Your task to perform on an android device: open app "Microsoft Excel" Image 0: 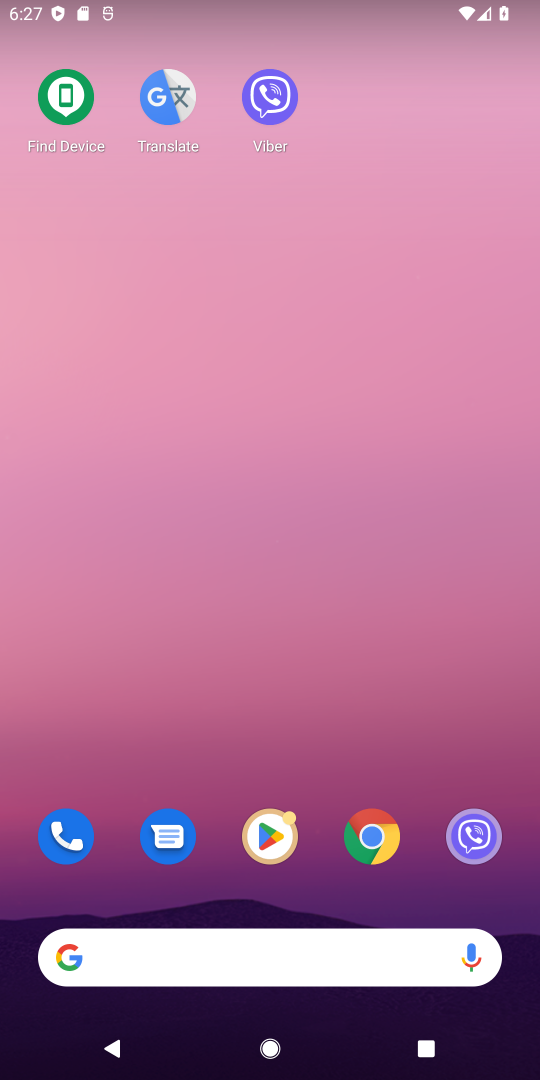
Step 0: press home button
Your task to perform on an android device: open app "Microsoft Excel" Image 1: 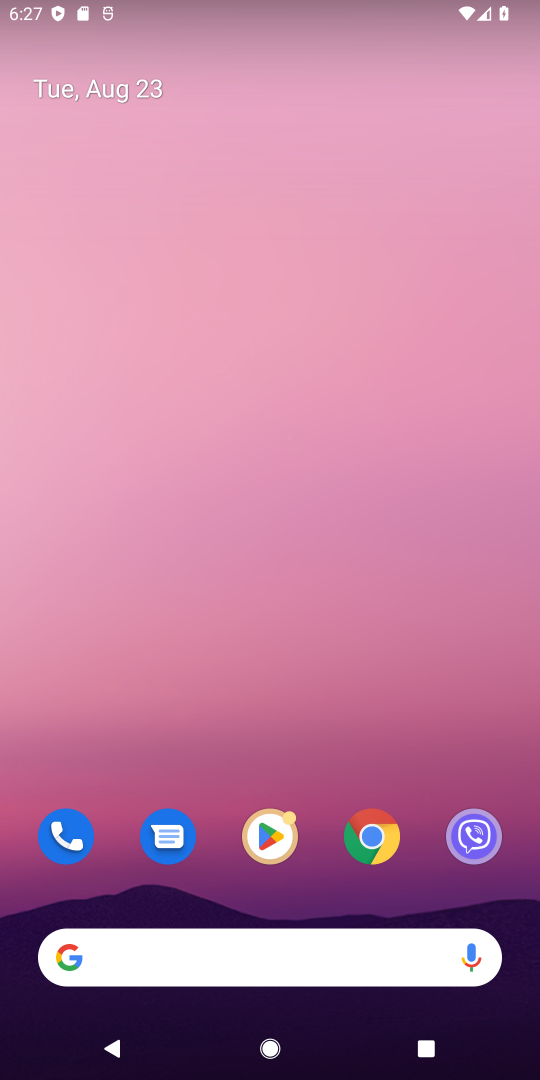
Step 1: click (268, 839)
Your task to perform on an android device: open app "Microsoft Excel" Image 2: 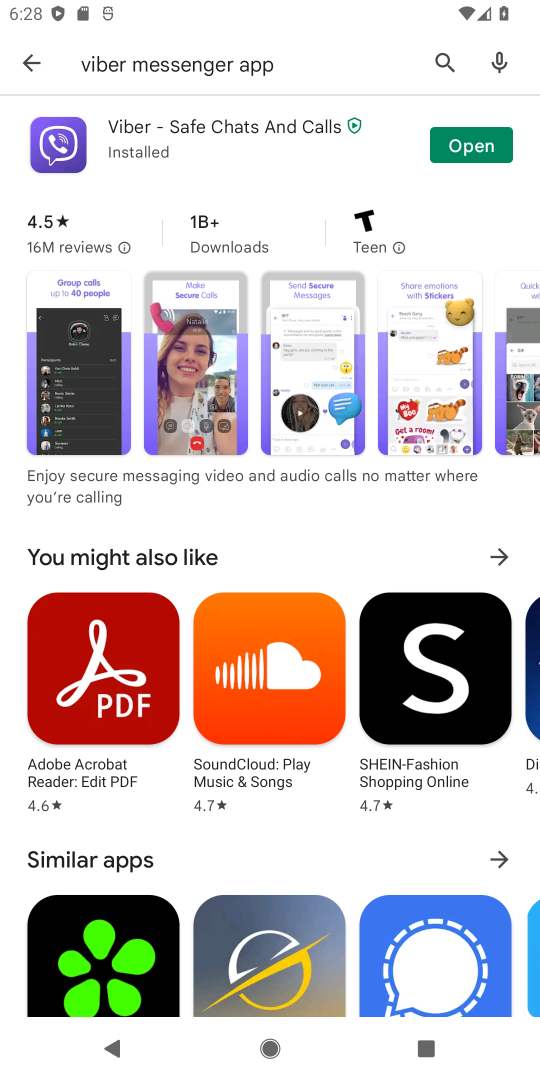
Step 2: click (440, 53)
Your task to perform on an android device: open app "Microsoft Excel" Image 3: 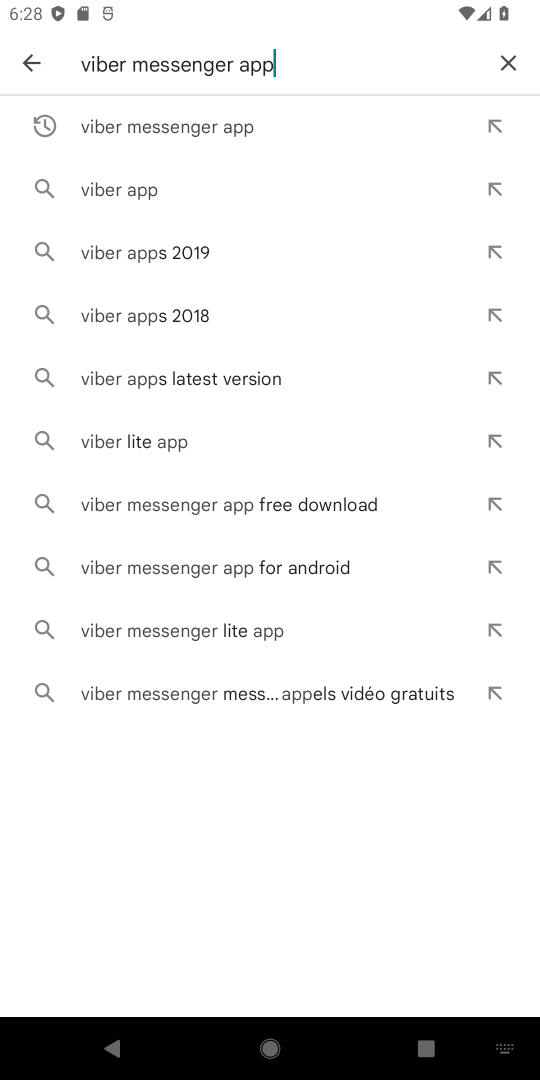
Step 3: click (511, 52)
Your task to perform on an android device: open app "Microsoft Excel" Image 4: 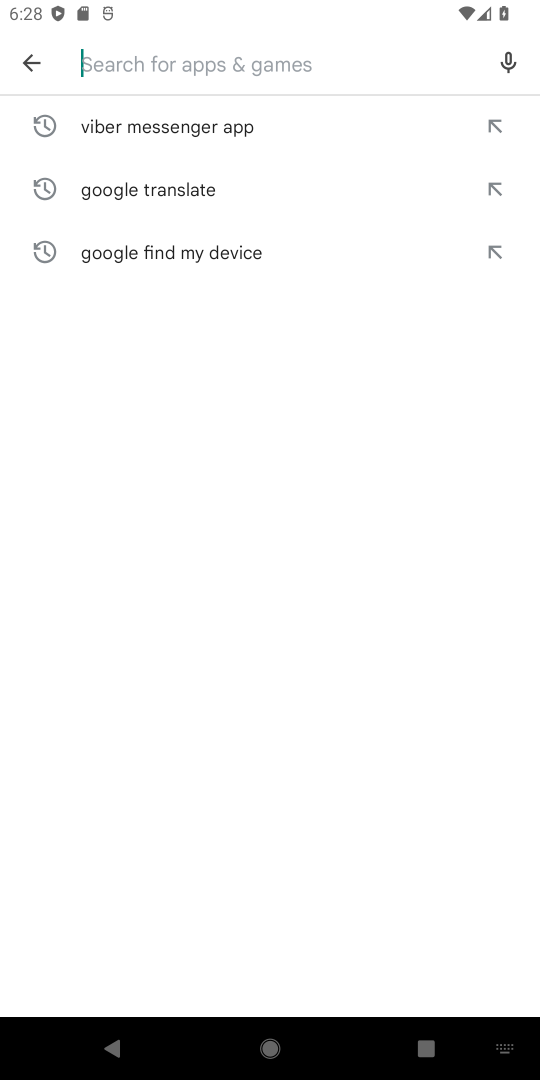
Step 4: type "Microsoft Excel"
Your task to perform on an android device: open app "Microsoft Excel" Image 5: 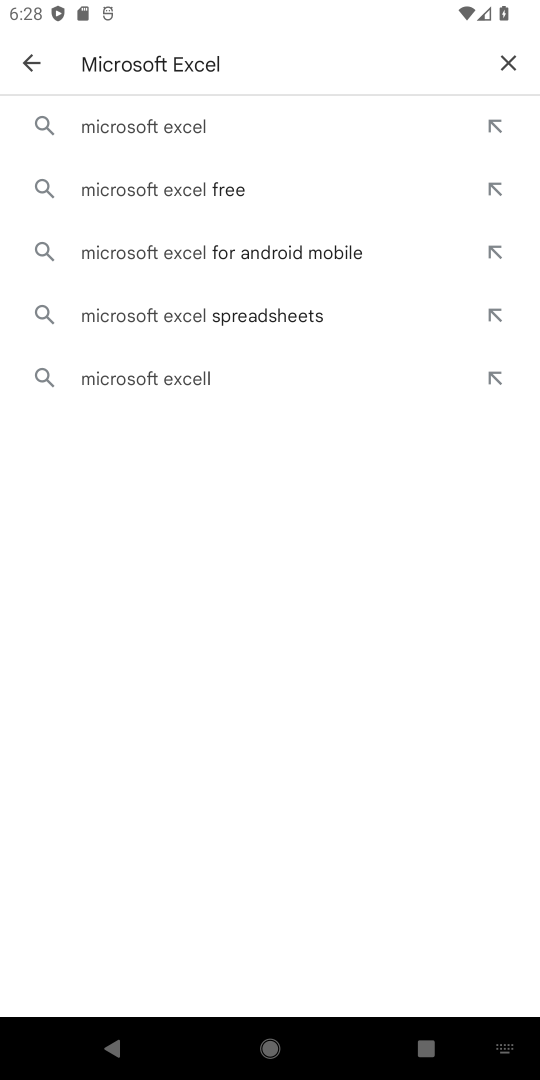
Step 5: click (101, 123)
Your task to perform on an android device: open app "Microsoft Excel" Image 6: 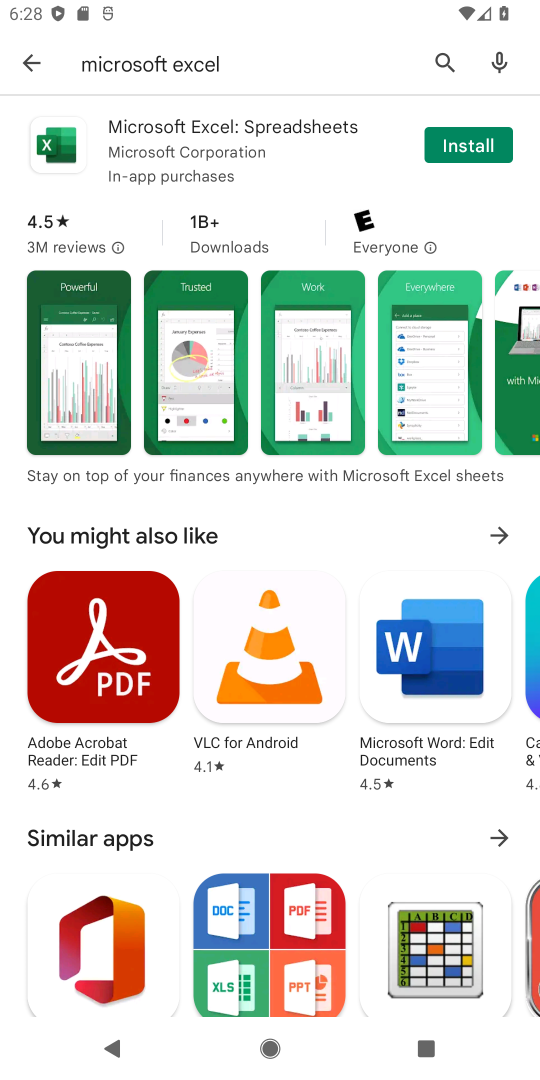
Step 6: task complete